Your task to perform on an android device: toggle priority inbox in the gmail app Image 0: 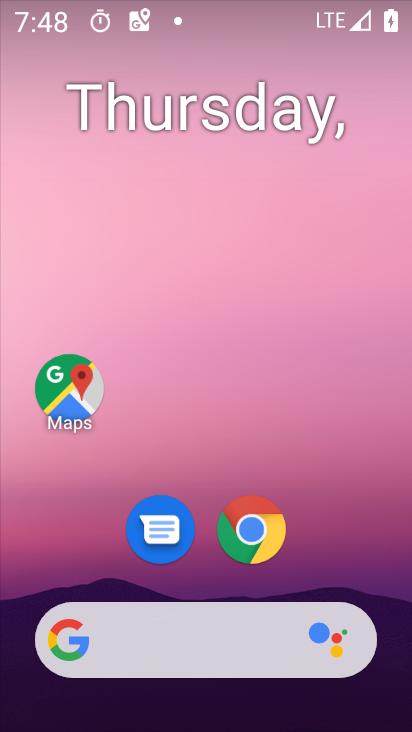
Step 0: drag from (378, 570) to (374, 265)
Your task to perform on an android device: toggle priority inbox in the gmail app Image 1: 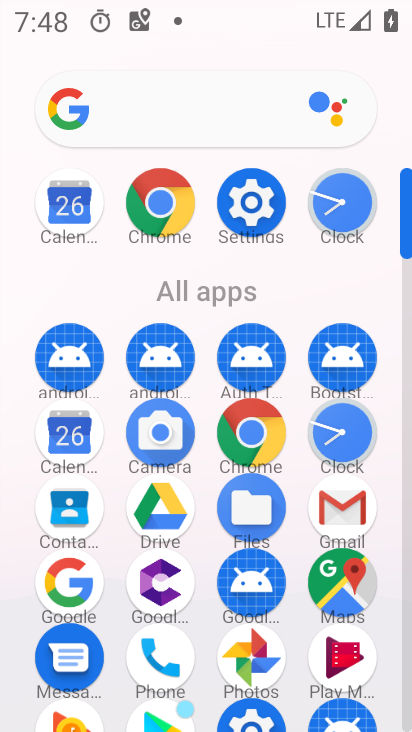
Step 1: click (349, 511)
Your task to perform on an android device: toggle priority inbox in the gmail app Image 2: 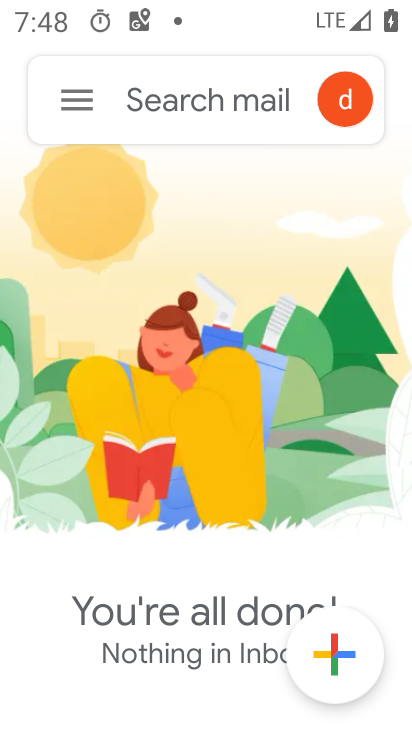
Step 2: click (74, 102)
Your task to perform on an android device: toggle priority inbox in the gmail app Image 3: 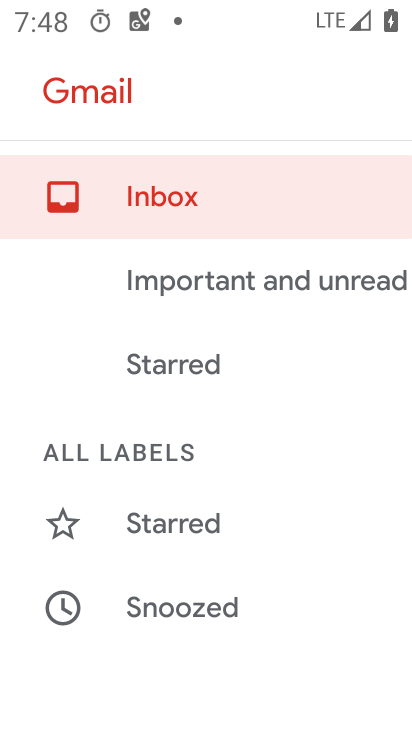
Step 3: drag from (300, 423) to (302, 348)
Your task to perform on an android device: toggle priority inbox in the gmail app Image 4: 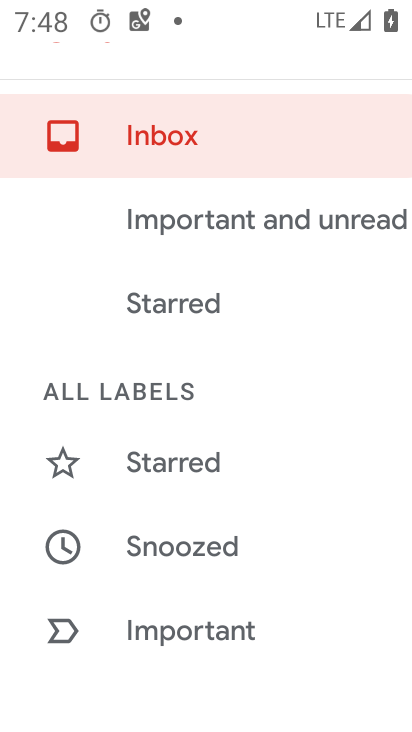
Step 4: drag from (319, 453) to (321, 344)
Your task to perform on an android device: toggle priority inbox in the gmail app Image 5: 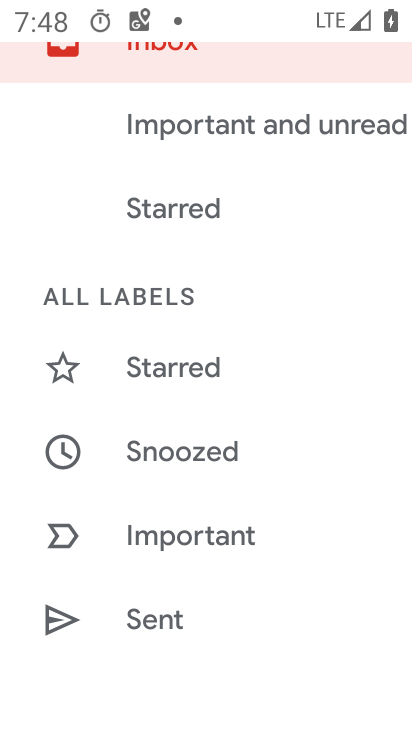
Step 5: drag from (306, 447) to (306, 365)
Your task to perform on an android device: toggle priority inbox in the gmail app Image 6: 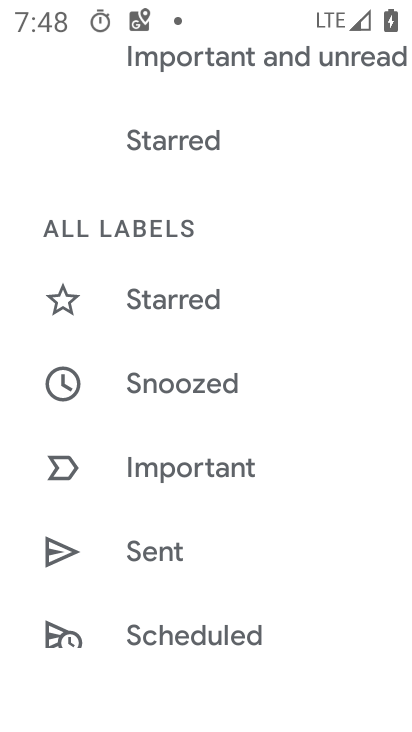
Step 6: drag from (314, 465) to (327, 379)
Your task to perform on an android device: toggle priority inbox in the gmail app Image 7: 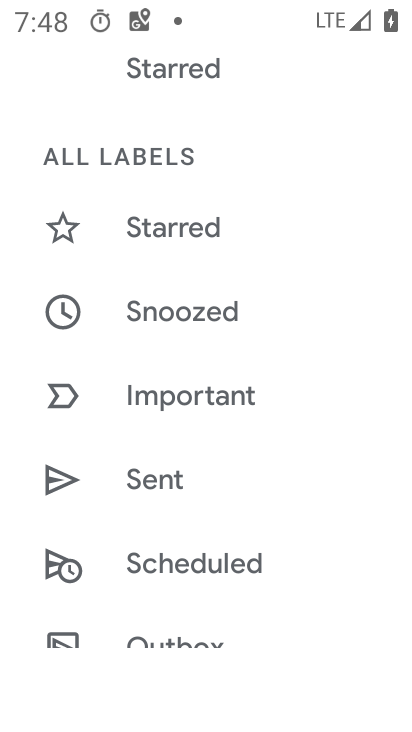
Step 7: drag from (334, 473) to (341, 413)
Your task to perform on an android device: toggle priority inbox in the gmail app Image 8: 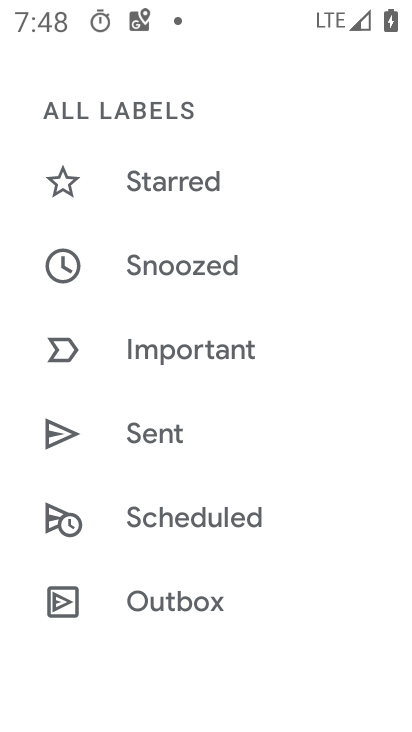
Step 8: drag from (338, 463) to (345, 394)
Your task to perform on an android device: toggle priority inbox in the gmail app Image 9: 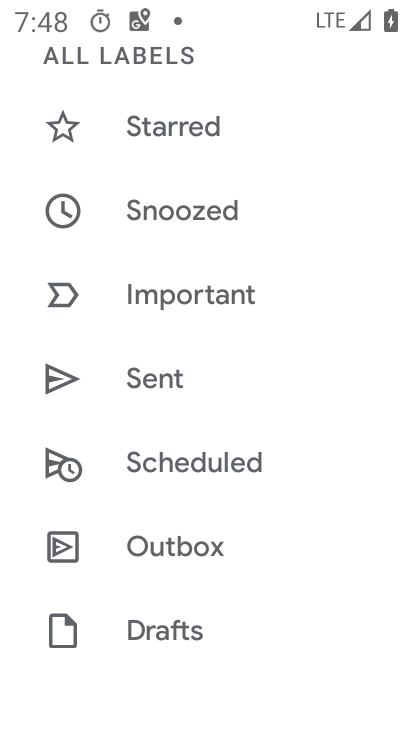
Step 9: drag from (339, 487) to (345, 435)
Your task to perform on an android device: toggle priority inbox in the gmail app Image 10: 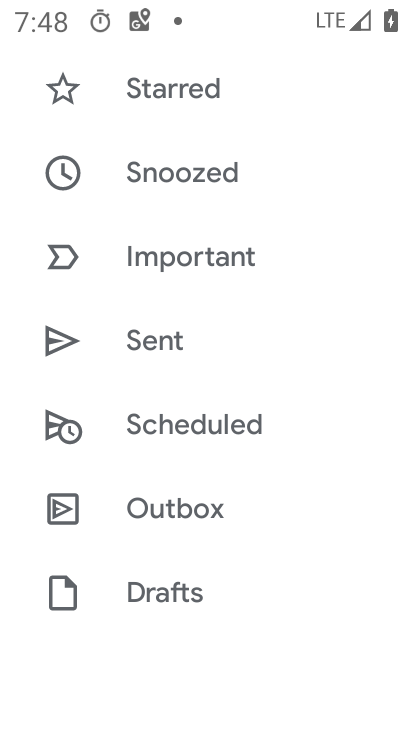
Step 10: drag from (342, 489) to (349, 442)
Your task to perform on an android device: toggle priority inbox in the gmail app Image 11: 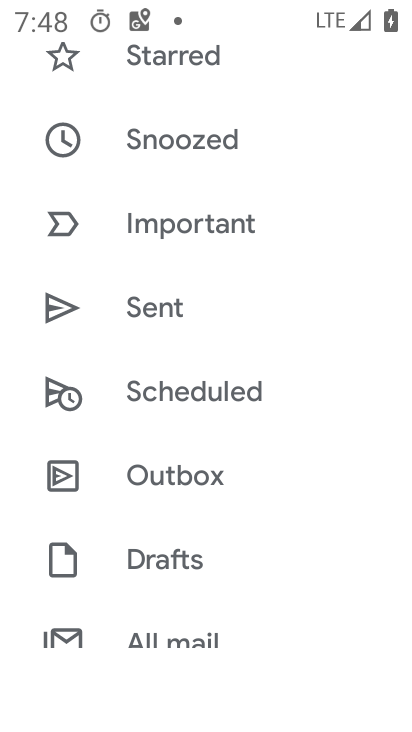
Step 11: drag from (327, 514) to (342, 414)
Your task to perform on an android device: toggle priority inbox in the gmail app Image 12: 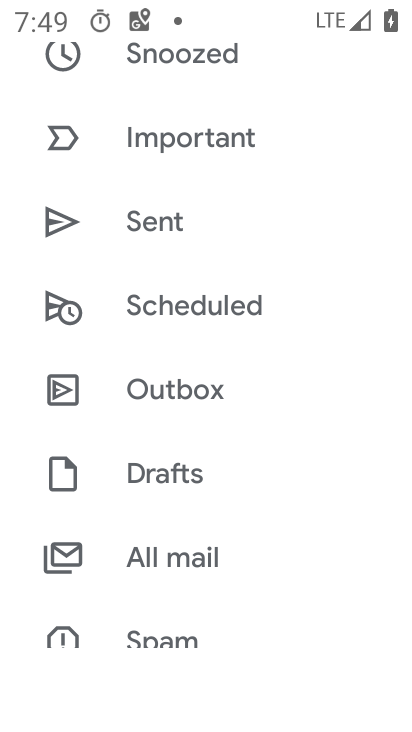
Step 12: drag from (328, 480) to (333, 429)
Your task to perform on an android device: toggle priority inbox in the gmail app Image 13: 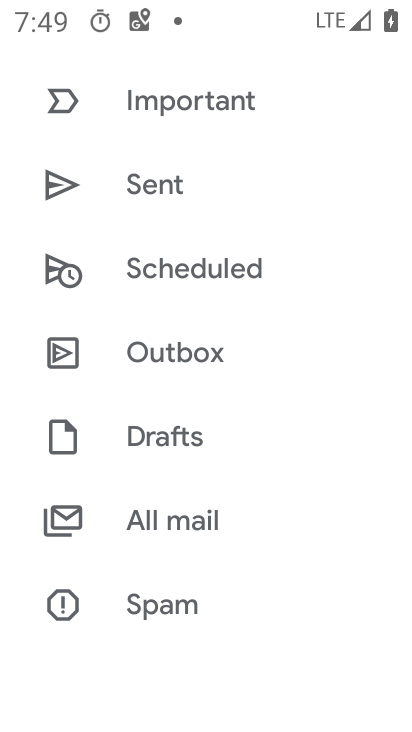
Step 13: drag from (324, 490) to (333, 365)
Your task to perform on an android device: toggle priority inbox in the gmail app Image 14: 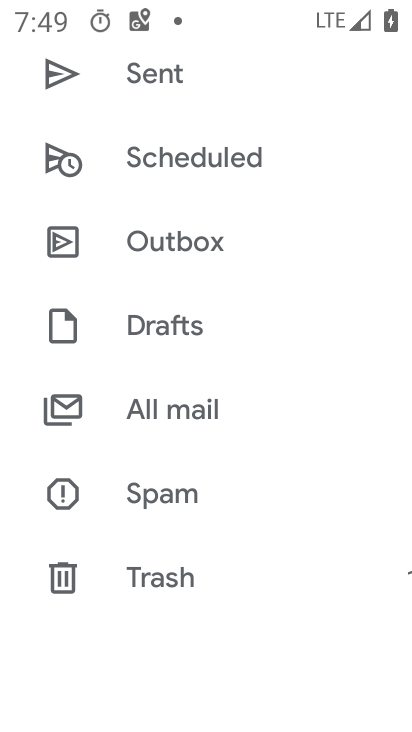
Step 14: drag from (318, 509) to (328, 439)
Your task to perform on an android device: toggle priority inbox in the gmail app Image 15: 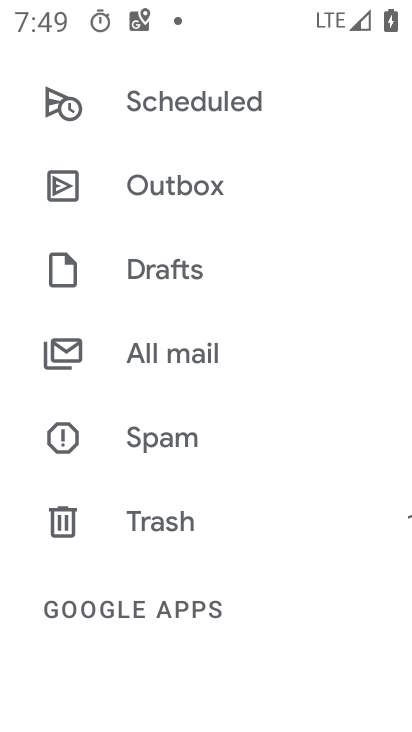
Step 15: drag from (325, 538) to (336, 446)
Your task to perform on an android device: toggle priority inbox in the gmail app Image 16: 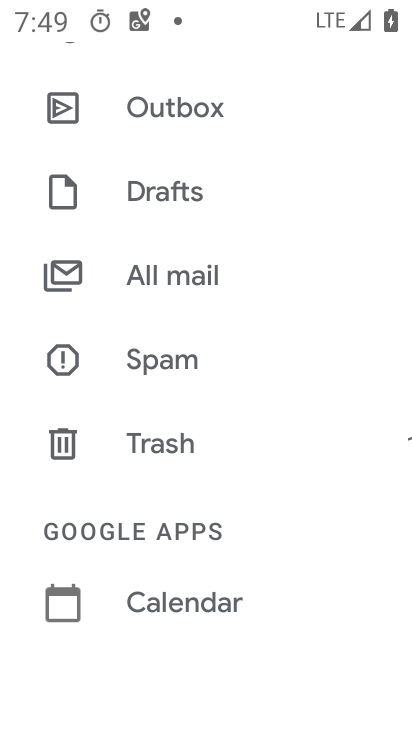
Step 16: drag from (326, 511) to (338, 380)
Your task to perform on an android device: toggle priority inbox in the gmail app Image 17: 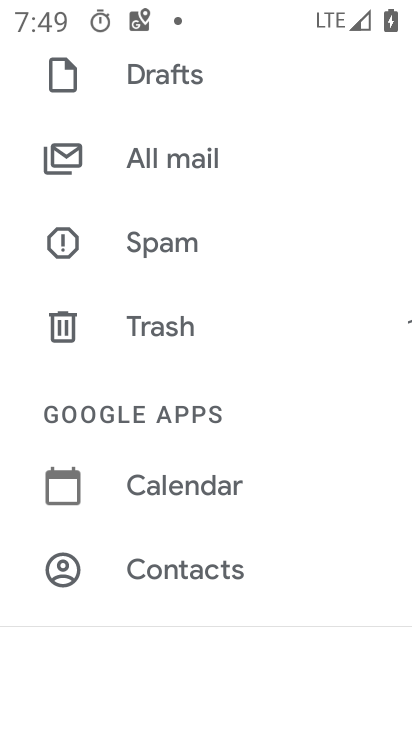
Step 17: drag from (330, 513) to (331, 389)
Your task to perform on an android device: toggle priority inbox in the gmail app Image 18: 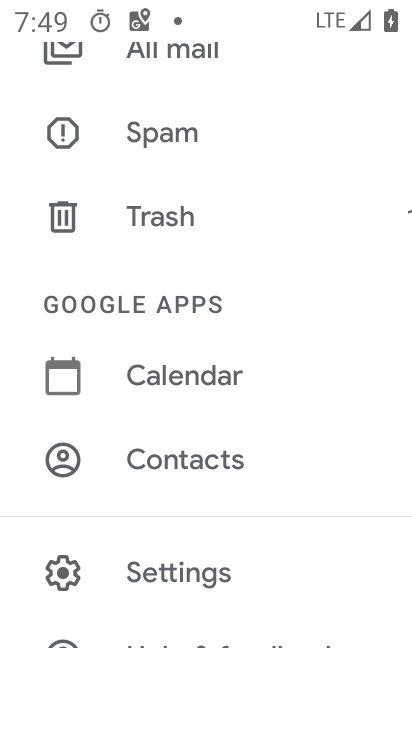
Step 18: drag from (324, 553) to (325, 451)
Your task to perform on an android device: toggle priority inbox in the gmail app Image 19: 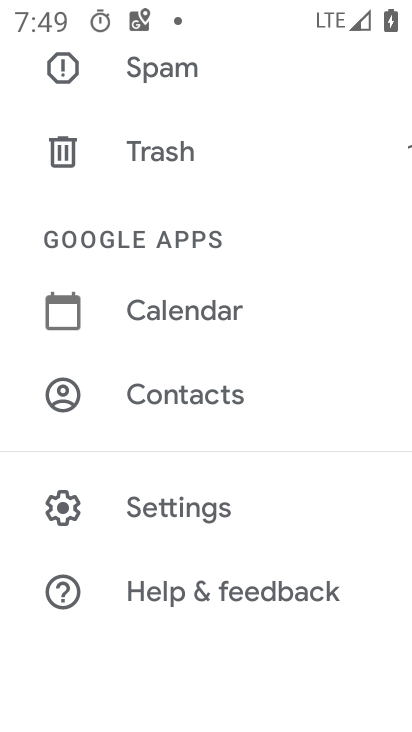
Step 19: click (263, 513)
Your task to perform on an android device: toggle priority inbox in the gmail app Image 20: 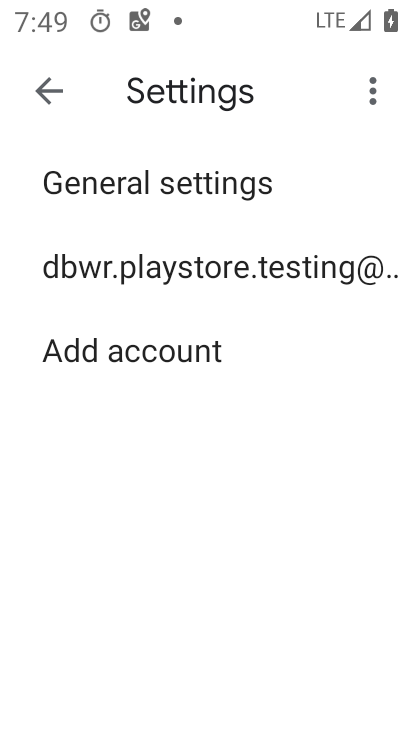
Step 20: click (262, 285)
Your task to perform on an android device: toggle priority inbox in the gmail app Image 21: 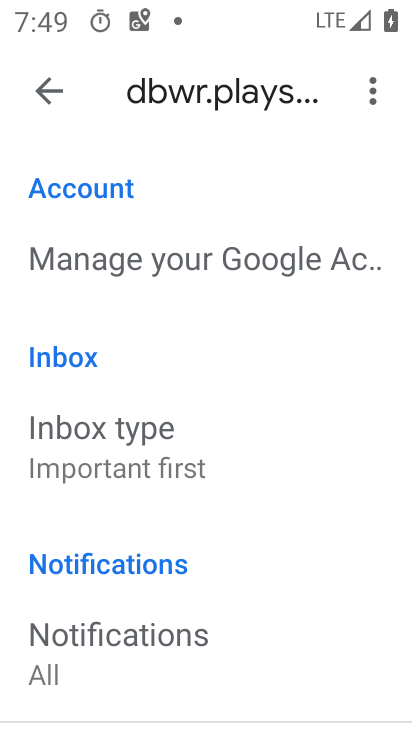
Step 21: drag from (304, 496) to (304, 445)
Your task to perform on an android device: toggle priority inbox in the gmail app Image 22: 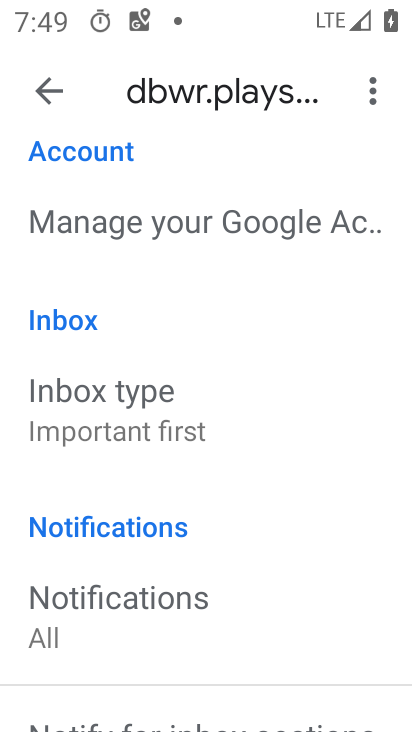
Step 22: drag from (300, 515) to (306, 446)
Your task to perform on an android device: toggle priority inbox in the gmail app Image 23: 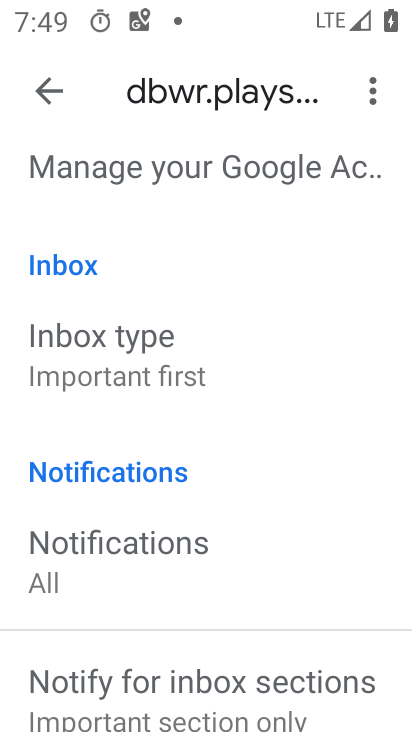
Step 23: click (216, 376)
Your task to perform on an android device: toggle priority inbox in the gmail app Image 24: 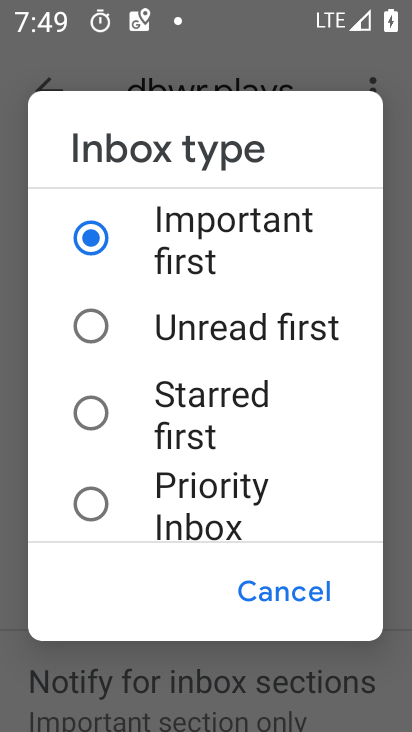
Step 24: click (209, 498)
Your task to perform on an android device: toggle priority inbox in the gmail app Image 25: 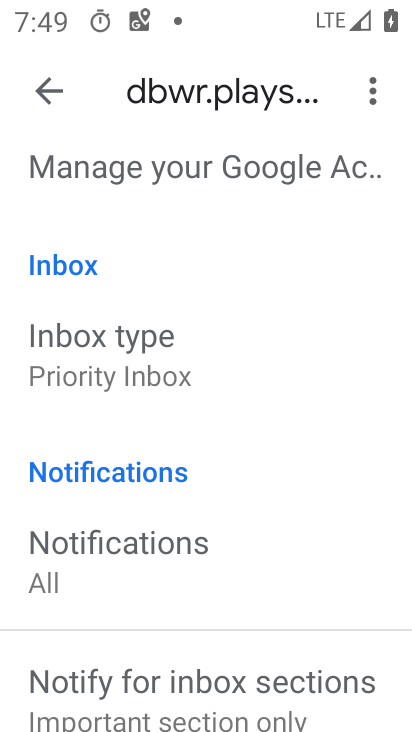
Step 25: task complete